Your task to perform on an android device: Find coffee shops on Maps Image 0: 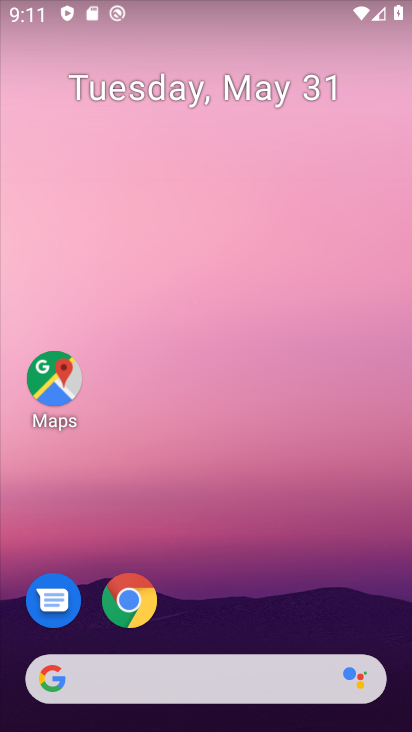
Step 0: drag from (305, 278) to (330, 101)
Your task to perform on an android device: Find coffee shops on Maps Image 1: 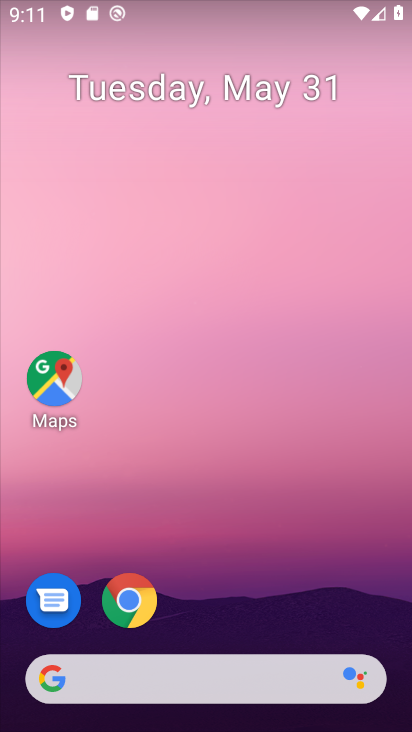
Step 1: click (62, 386)
Your task to perform on an android device: Find coffee shops on Maps Image 2: 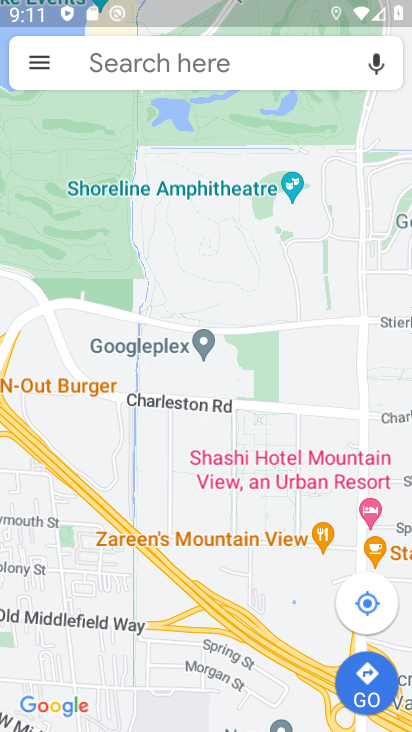
Step 2: click (111, 62)
Your task to perform on an android device: Find coffee shops on Maps Image 3: 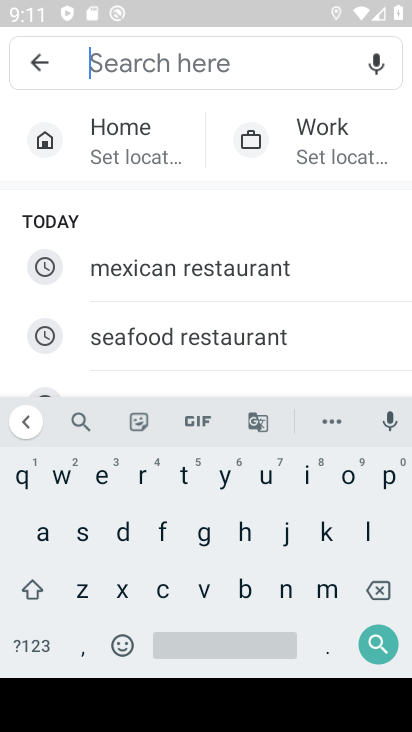
Step 3: click (154, 583)
Your task to perform on an android device: Find coffee shops on Maps Image 4: 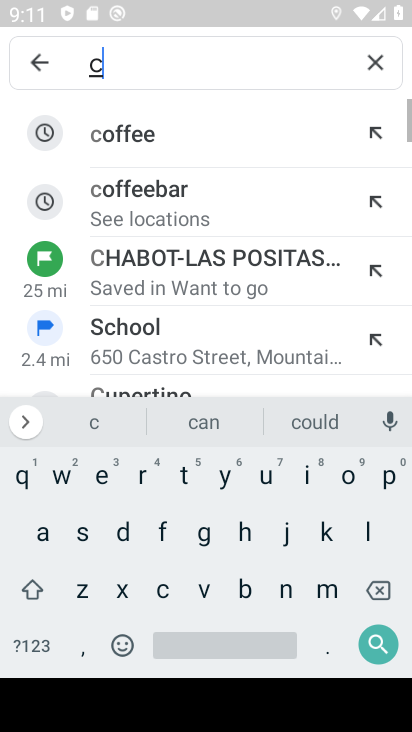
Step 4: click (345, 476)
Your task to perform on an android device: Find coffee shops on Maps Image 5: 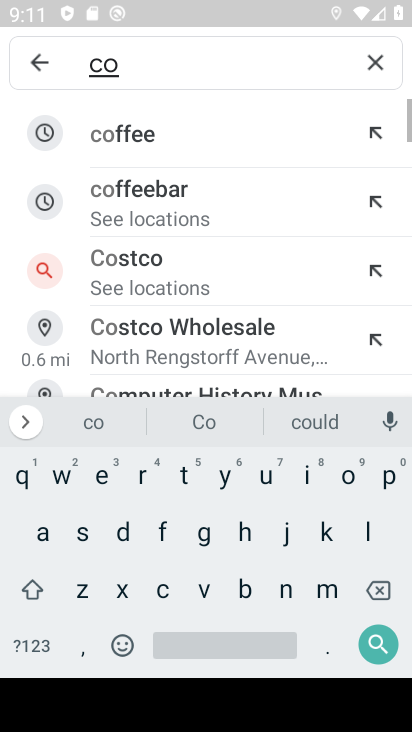
Step 5: click (148, 126)
Your task to perform on an android device: Find coffee shops on Maps Image 6: 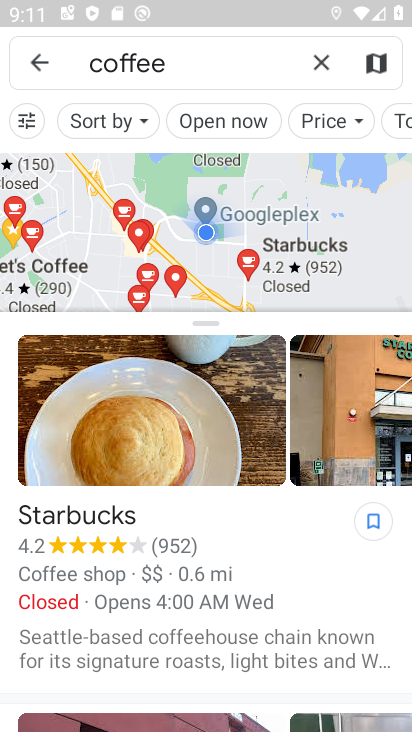
Step 6: task complete